Your task to perform on an android device: Open the map Image 0: 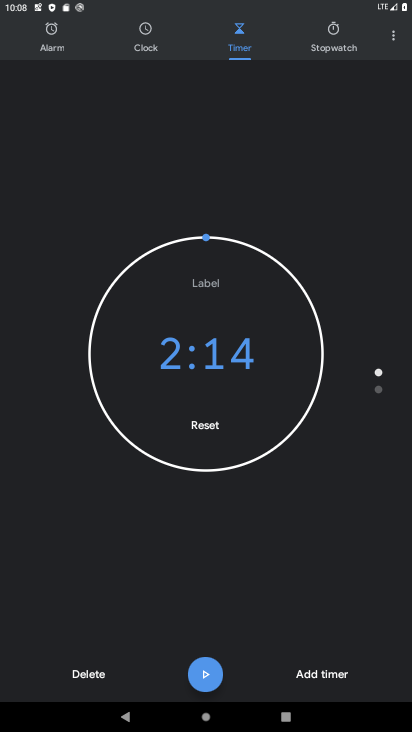
Step 0: press home button
Your task to perform on an android device: Open the map Image 1: 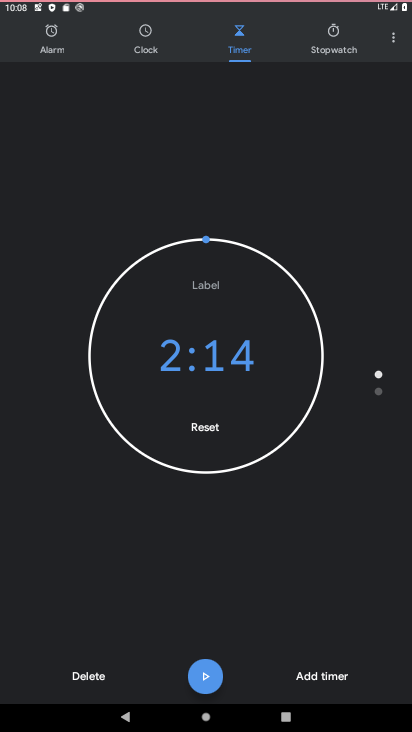
Step 1: click (390, 405)
Your task to perform on an android device: Open the map Image 2: 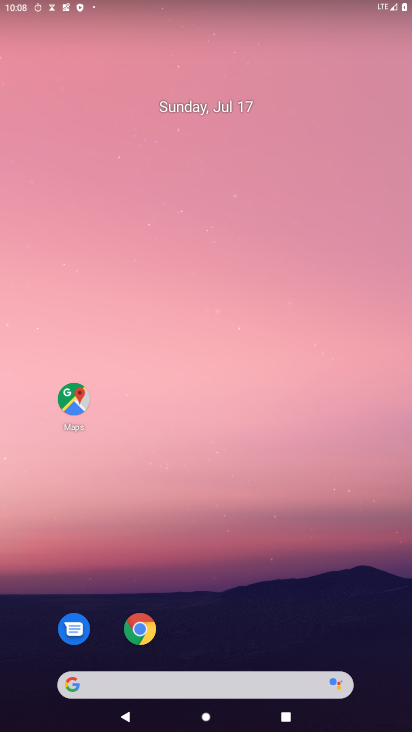
Step 2: drag from (227, 731) to (227, 108)
Your task to perform on an android device: Open the map Image 3: 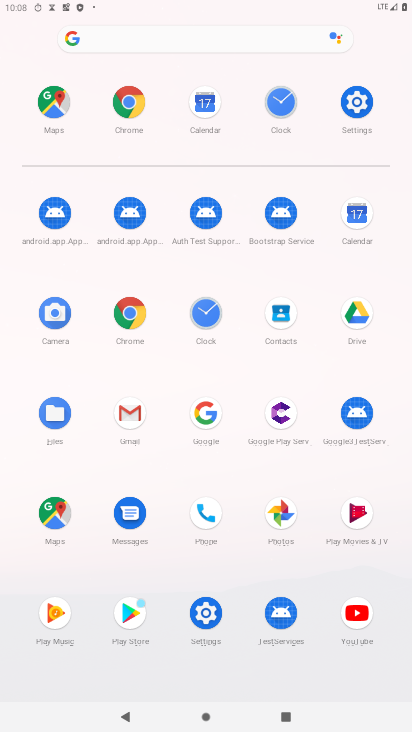
Step 3: click (56, 514)
Your task to perform on an android device: Open the map Image 4: 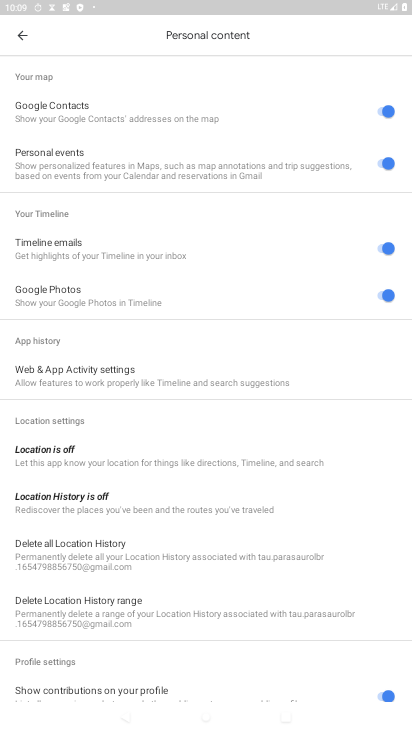
Step 4: click (26, 33)
Your task to perform on an android device: Open the map Image 5: 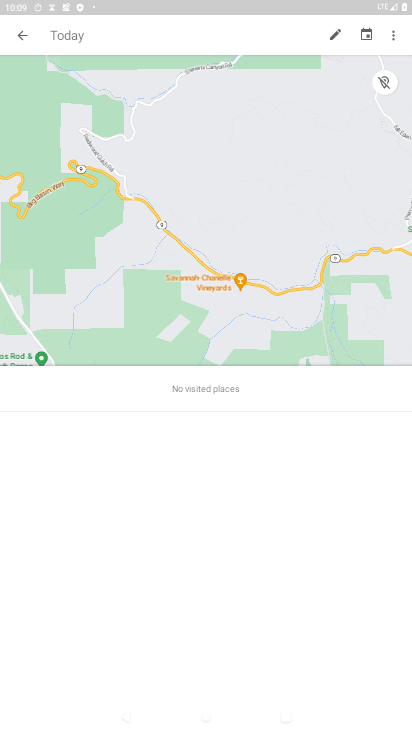
Step 5: task complete